Your task to perform on an android device: toggle wifi Image 0: 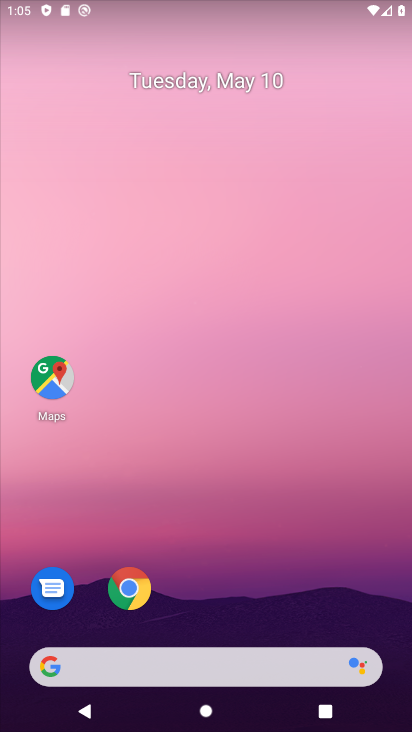
Step 0: drag from (209, 696) to (372, 163)
Your task to perform on an android device: toggle wifi Image 1: 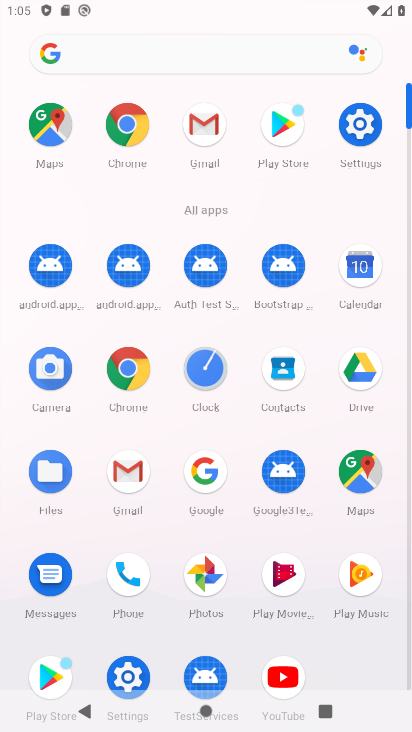
Step 1: click (355, 117)
Your task to perform on an android device: toggle wifi Image 2: 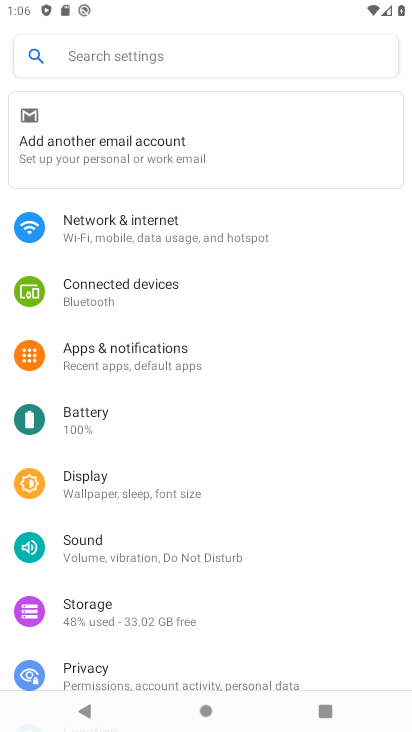
Step 2: click (127, 243)
Your task to perform on an android device: toggle wifi Image 3: 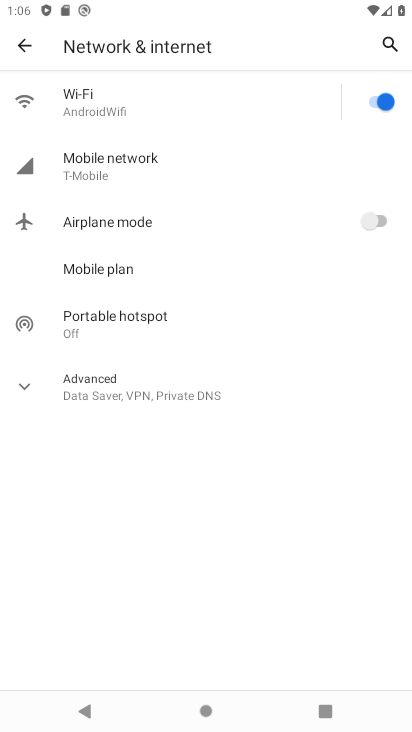
Step 3: click (115, 124)
Your task to perform on an android device: toggle wifi Image 4: 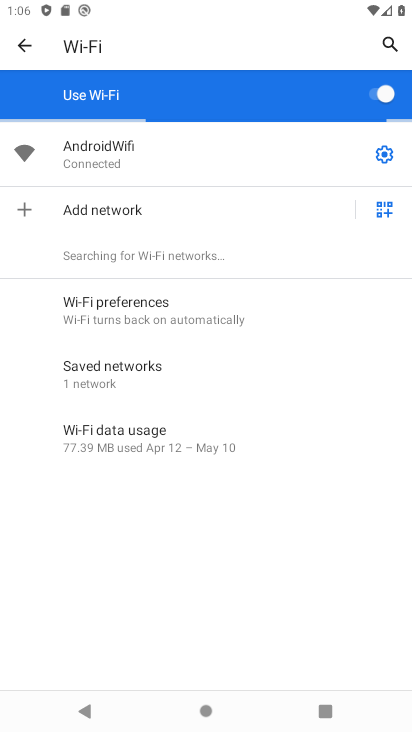
Step 4: task complete